Your task to perform on an android device: star an email in the gmail app Image 0: 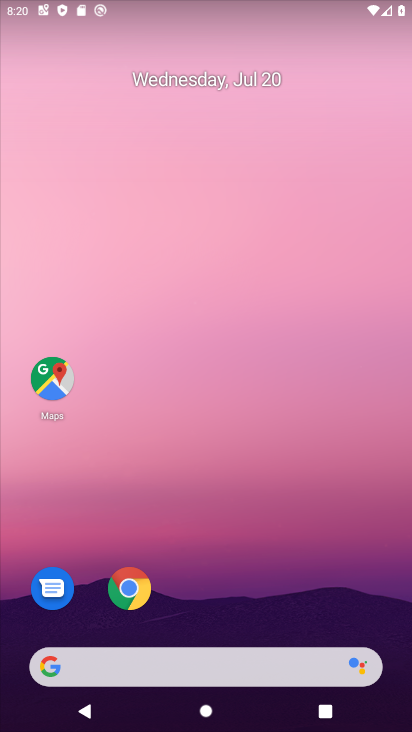
Step 0: drag from (264, 648) to (240, 294)
Your task to perform on an android device: star an email in the gmail app Image 1: 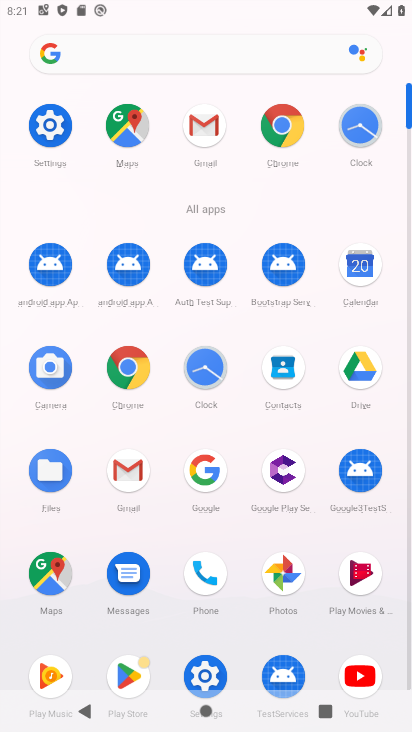
Step 1: click (201, 127)
Your task to perform on an android device: star an email in the gmail app Image 2: 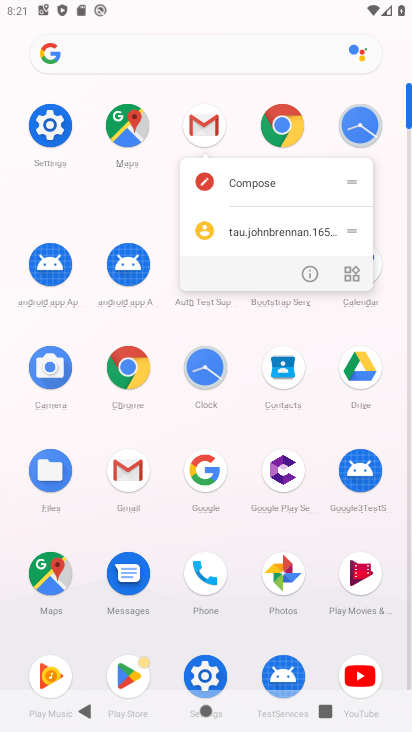
Step 2: click (207, 129)
Your task to perform on an android device: star an email in the gmail app Image 3: 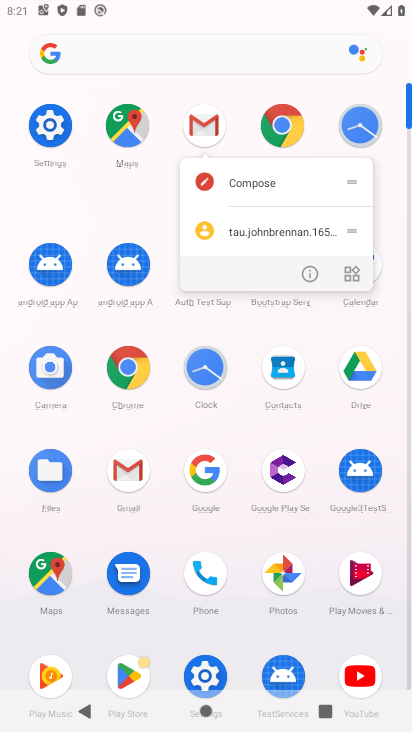
Step 3: click (207, 129)
Your task to perform on an android device: star an email in the gmail app Image 4: 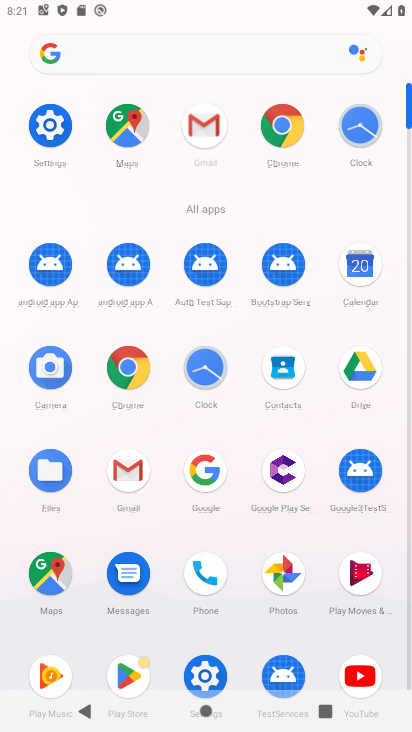
Step 4: click (207, 129)
Your task to perform on an android device: star an email in the gmail app Image 5: 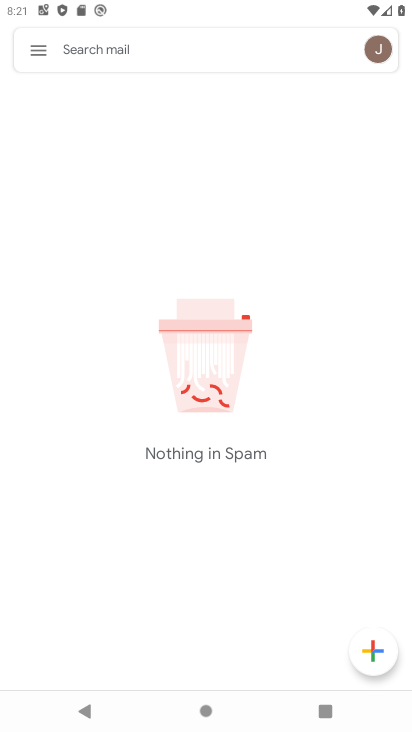
Step 5: click (33, 51)
Your task to perform on an android device: star an email in the gmail app Image 6: 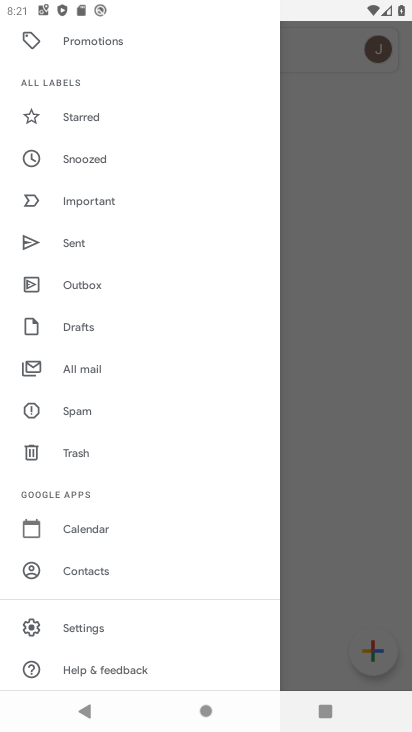
Step 6: click (98, 369)
Your task to perform on an android device: star an email in the gmail app Image 7: 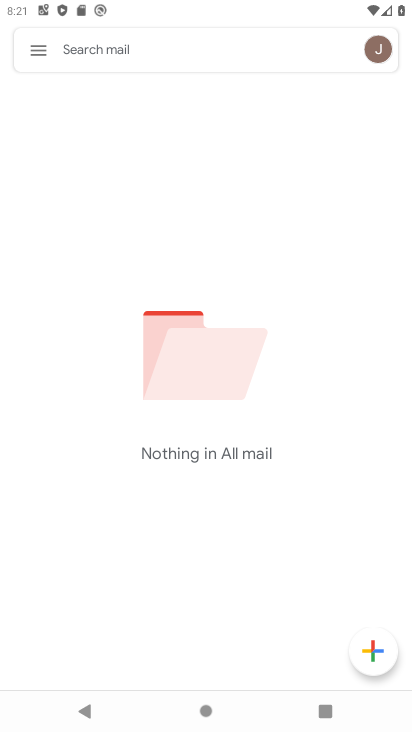
Step 7: task complete